Your task to perform on an android device: turn off location Image 0: 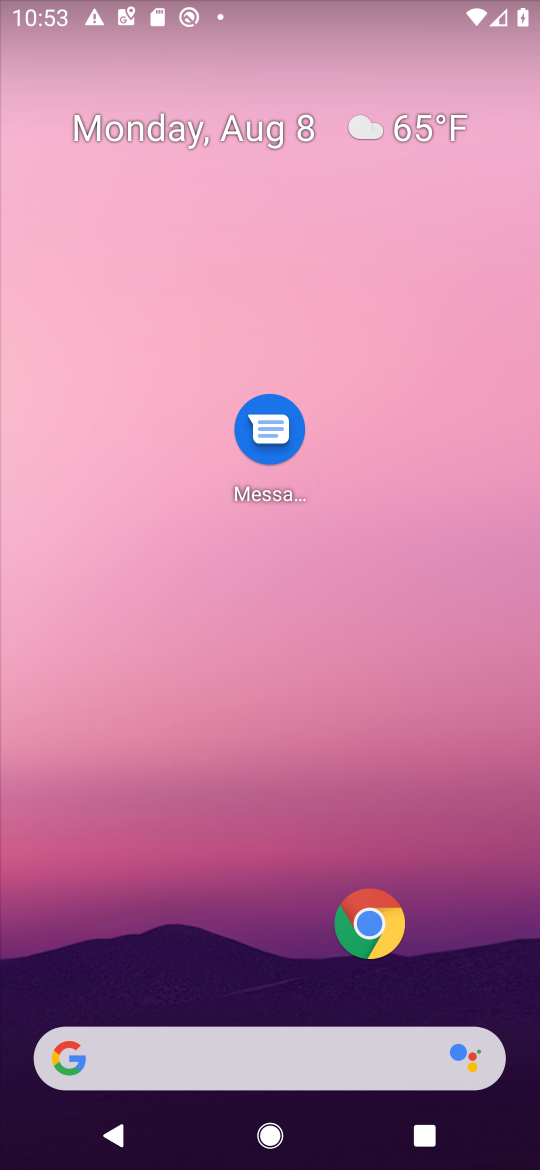
Step 0: drag from (379, 322) to (420, 247)
Your task to perform on an android device: turn off location Image 1: 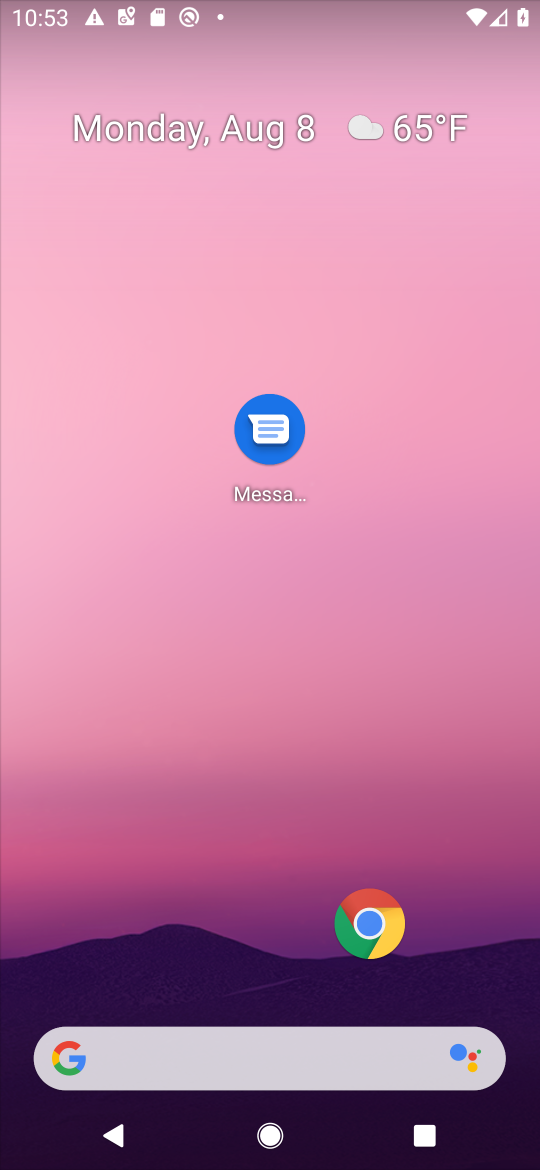
Step 1: drag from (52, 1117) to (296, 382)
Your task to perform on an android device: turn off location Image 2: 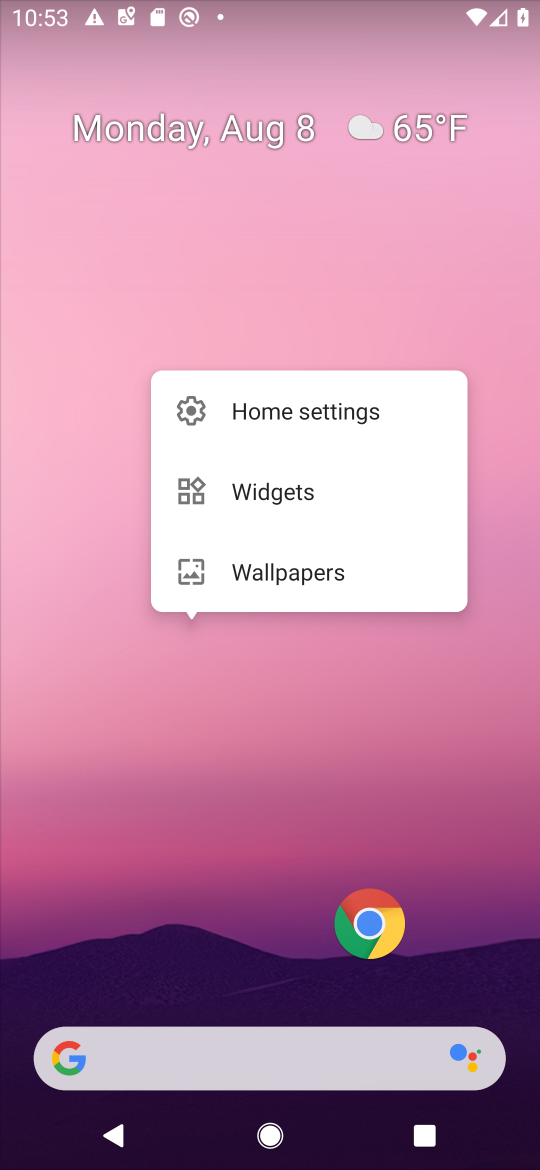
Step 2: click (105, 814)
Your task to perform on an android device: turn off location Image 3: 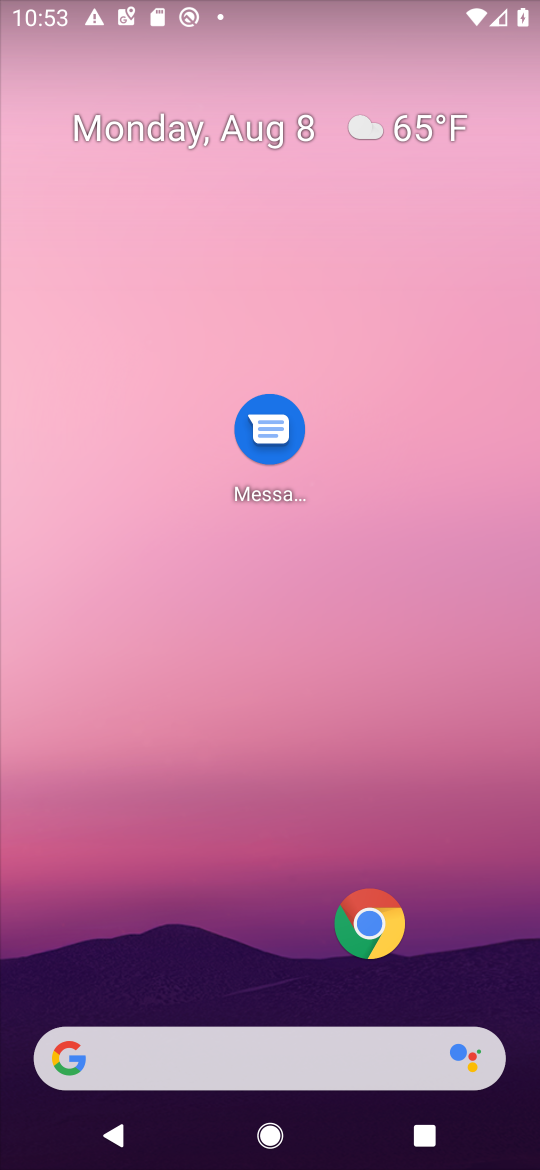
Step 3: task complete